Your task to perform on an android device: What's on my calendar today? Image 0: 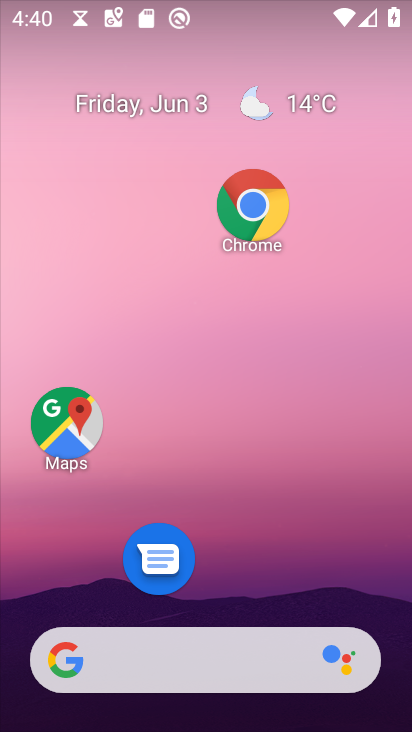
Step 0: drag from (228, 695) to (70, 67)
Your task to perform on an android device: What's on my calendar today? Image 1: 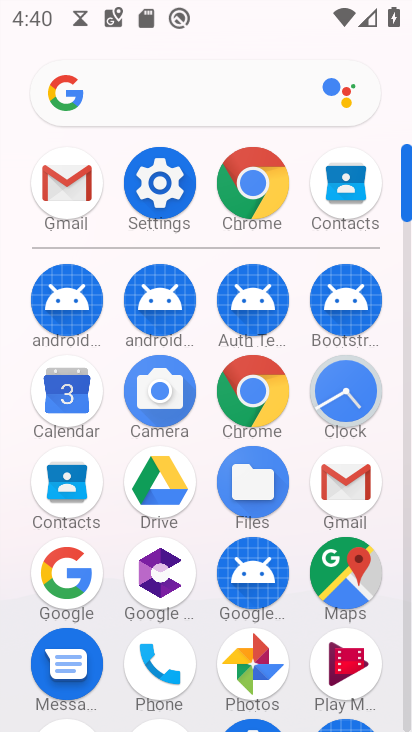
Step 1: click (65, 394)
Your task to perform on an android device: What's on my calendar today? Image 2: 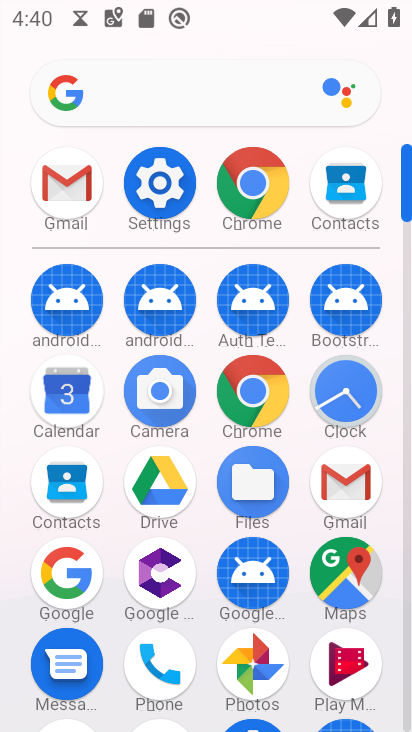
Step 2: click (63, 397)
Your task to perform on an android device: What's on my calendar today? Image 3: 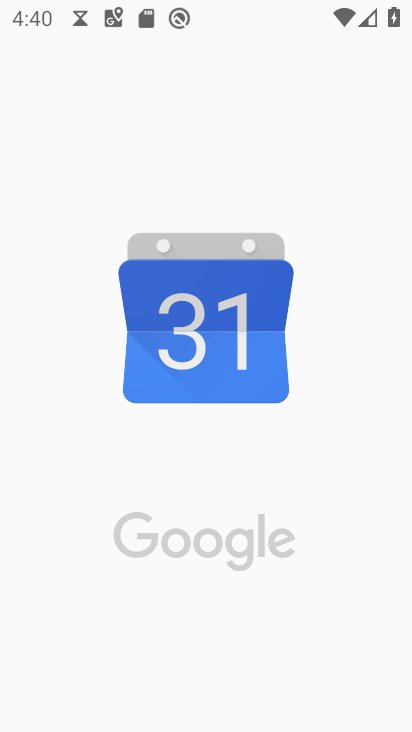
Step 3: click (60, 409)
Your task to perform on an android device: What's on my calendar today? Image 4: 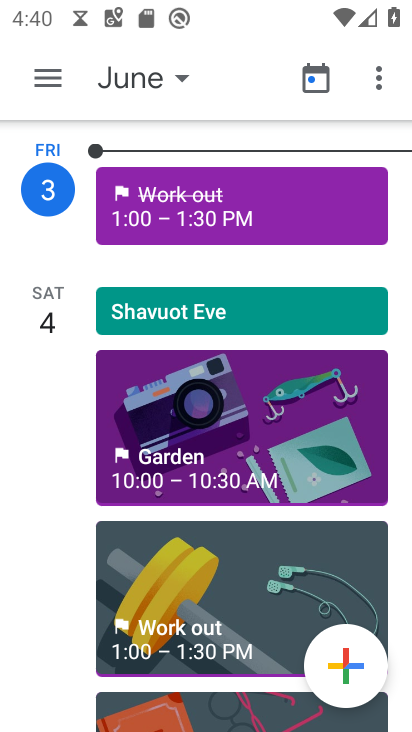
Step 4: click (185, 72)
Your task to perform on an android device: What's on my calendar today? Image 5: 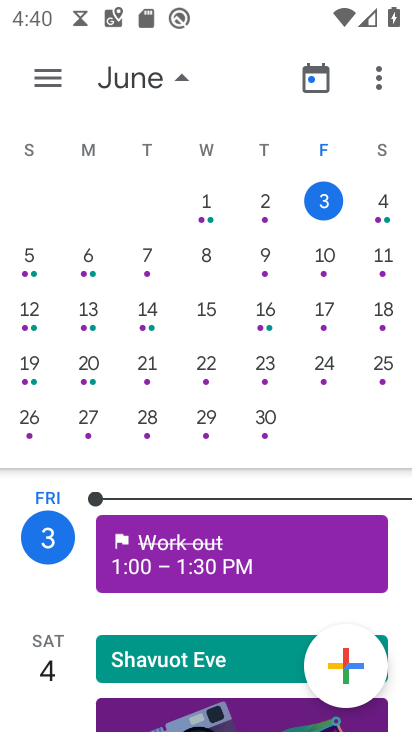
Step 5: click (303, 184)
Your task to perform on an android device: What's on my calendar today? Image 6: 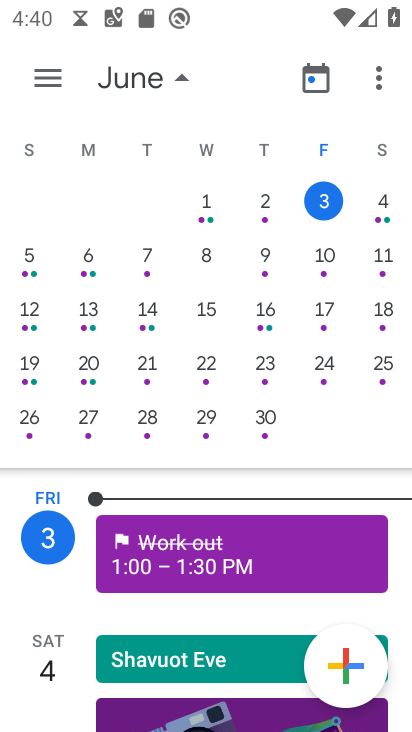
Step 6: click (316, 195)
Your task to perform on an android device: What's on my calendar today? Image 7: 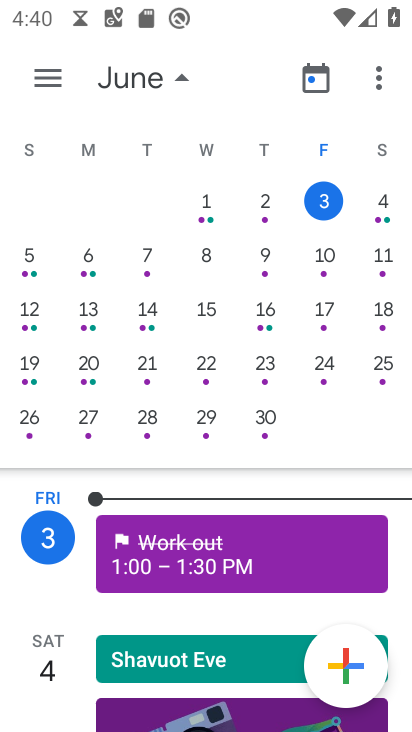
Step 7: task complete